Your task to perform on an android device: turn on airplane mode Image 0: 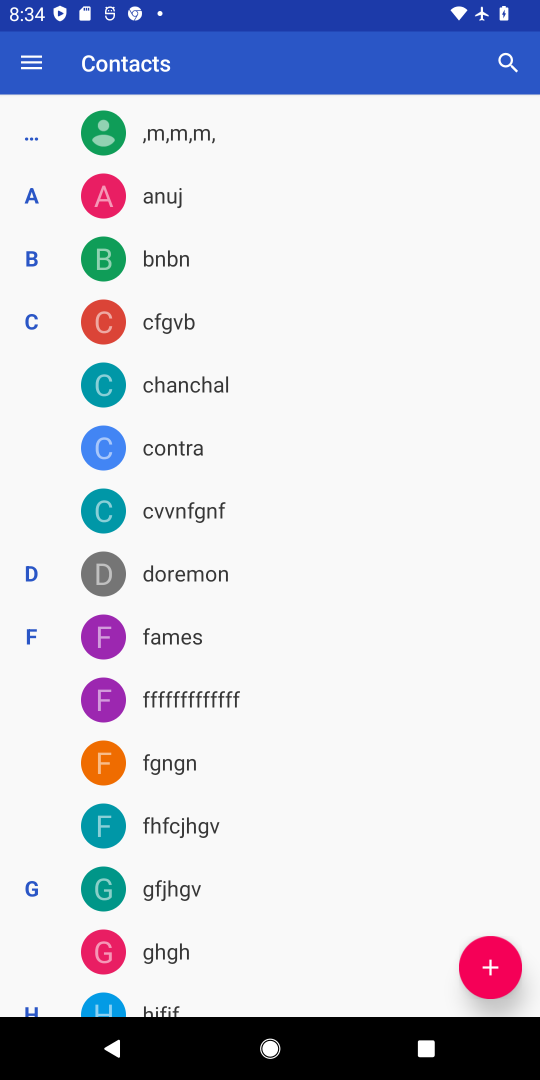
Step 0: press home button
Your task to perform on an android device: turn on airplane mode Image 1: 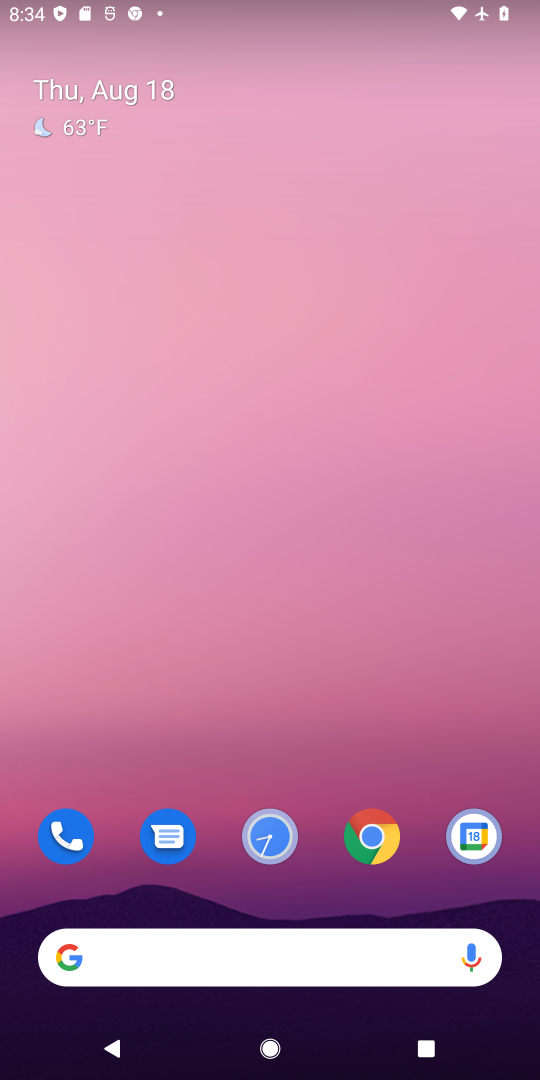
Step 1: drag from (274, 770) to (303, 36)
Your task to perform on an android device: turn on airplane mode Image 2: 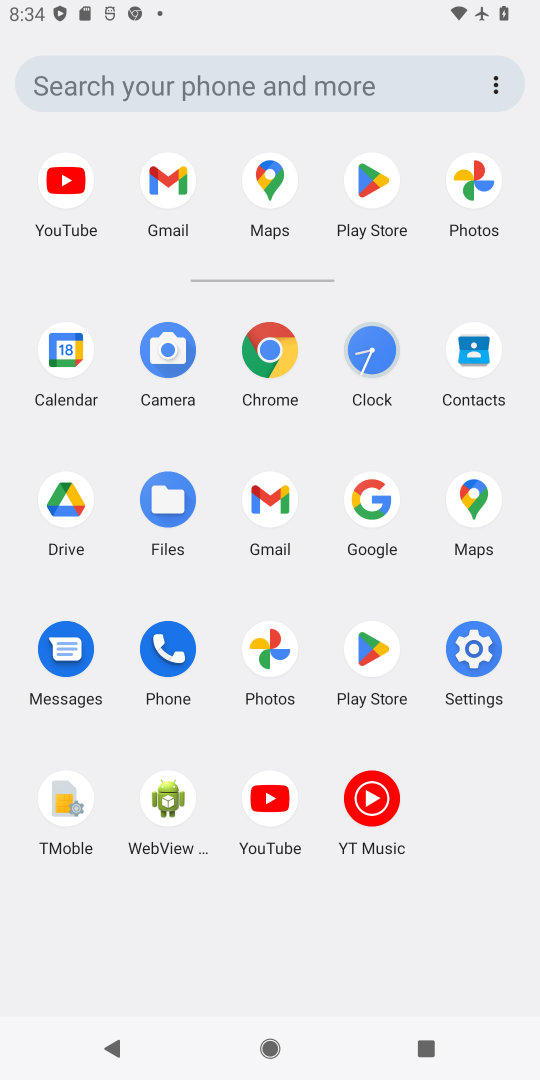
Step 2: click (484, 660)
Your task to perform on an android device: turn on airplane mode Image 3: 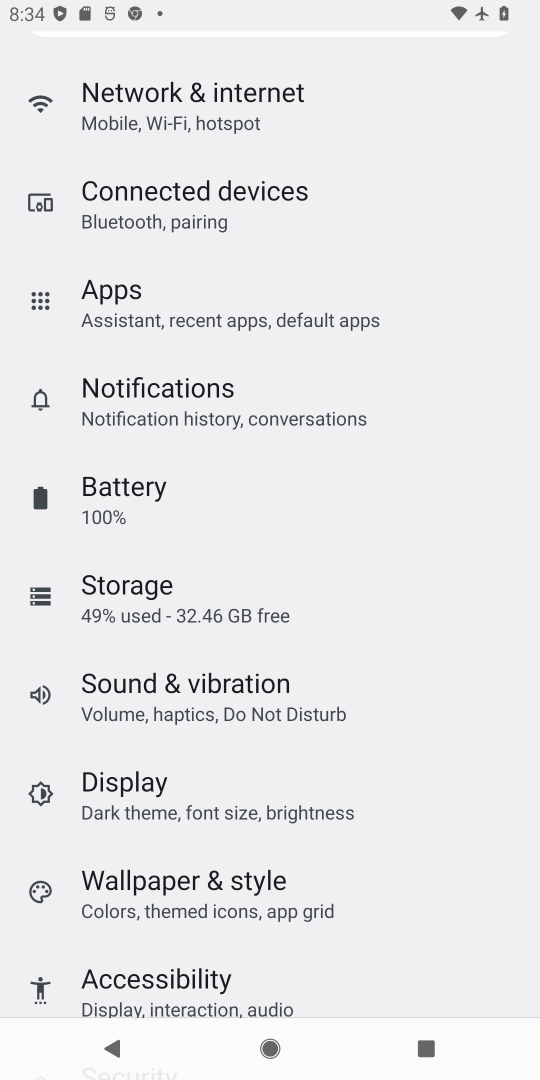
Step 3: drag from (337, 190) to (336, 897)
Your task to perform on an android device: turn on airplane mode Image 4: 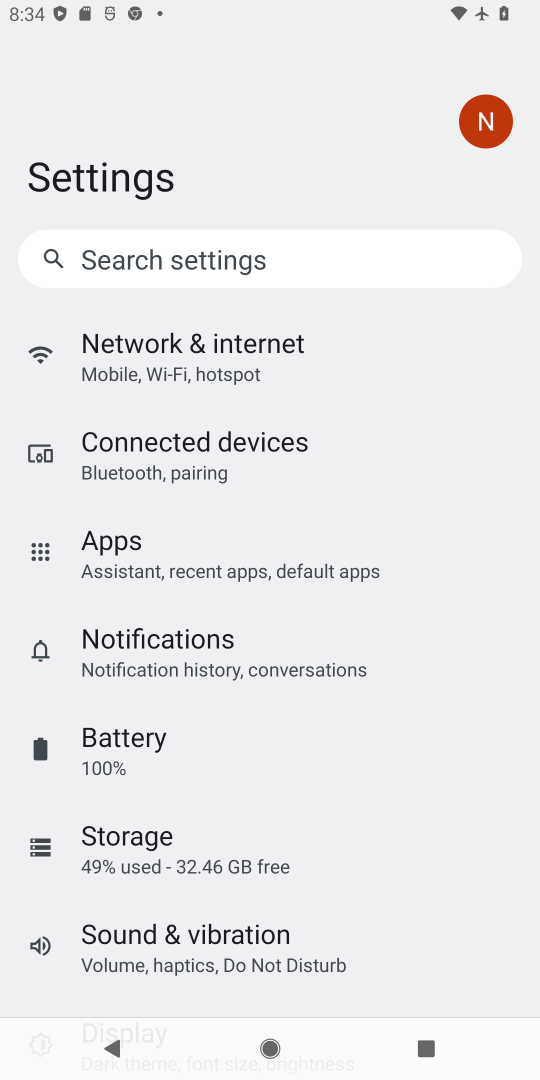
Step 4: drag from (311, 849) to (275, 941)
Your task to perform on an android device: turn on airplane mode Image 5: 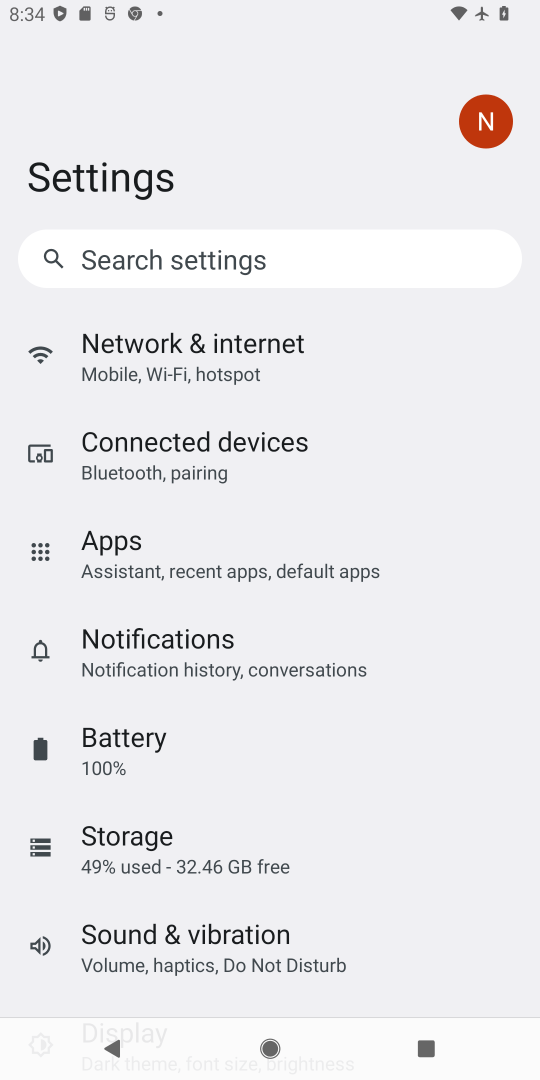
Step 5: click (269, 375)
Your task to perform on an android device: turn on airplane mode Image 6: 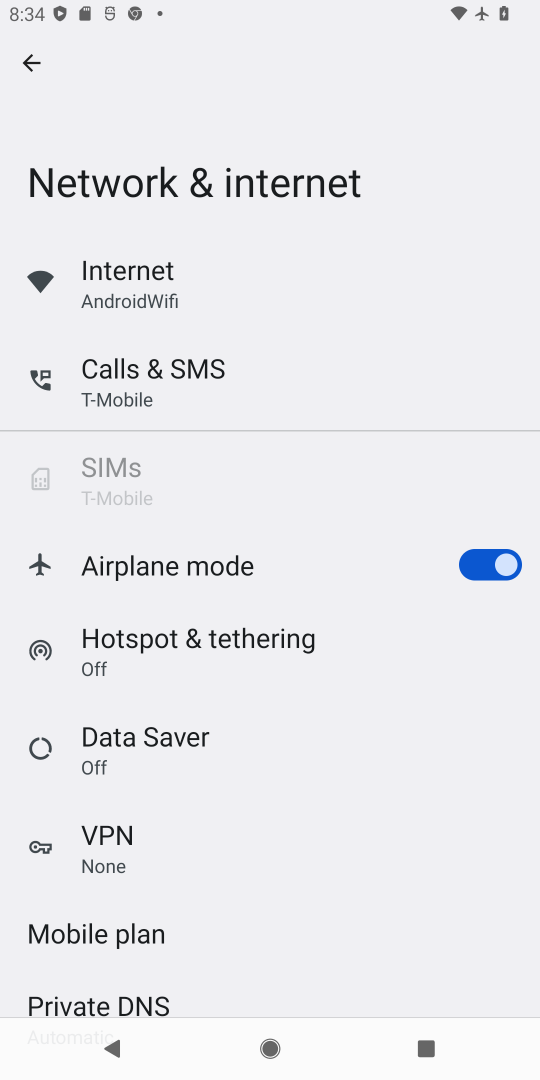
Step 6: task complete